Your task to perform on an android device: turn pop-ups off in chrome Image 0: 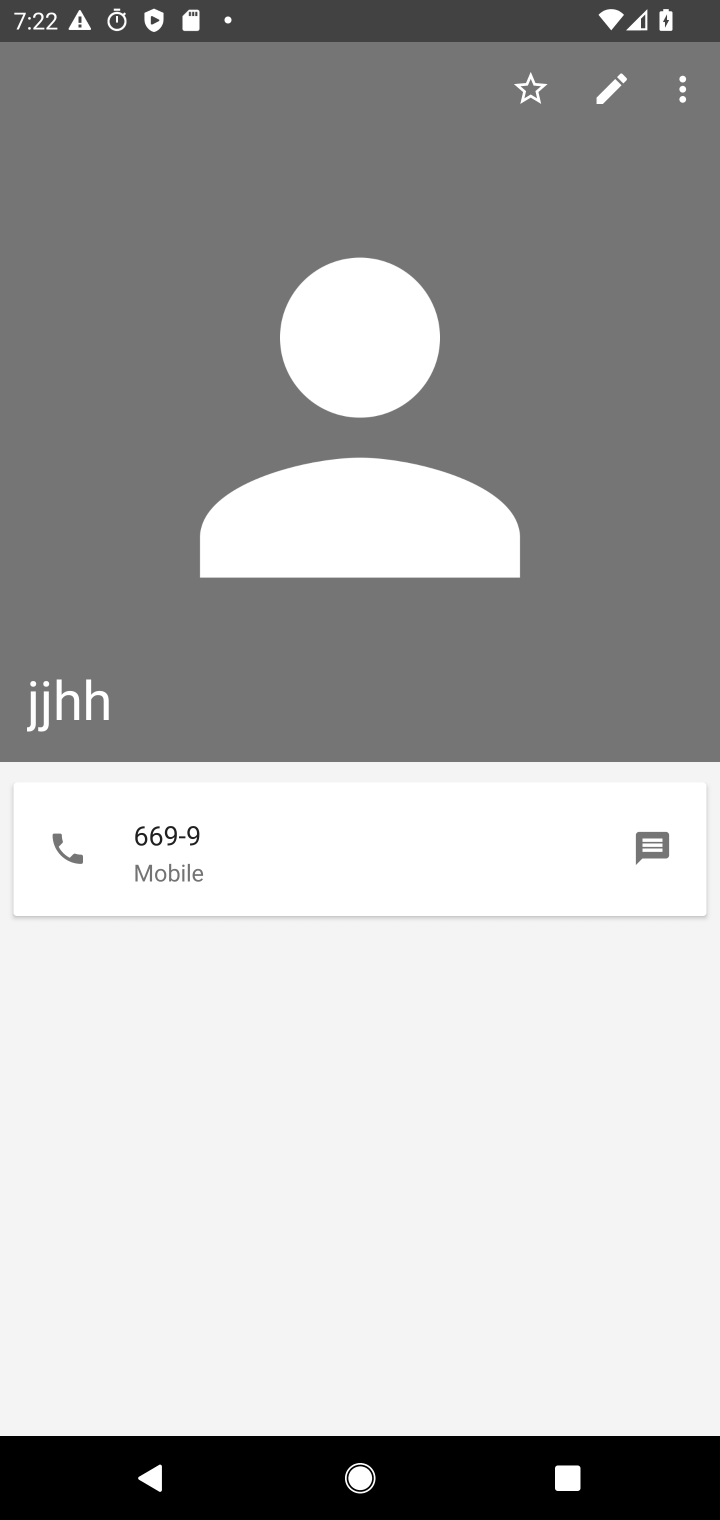
Step 0: press home button
Your task to perform on an android device: turn pop-ups off in chrome Image 1: 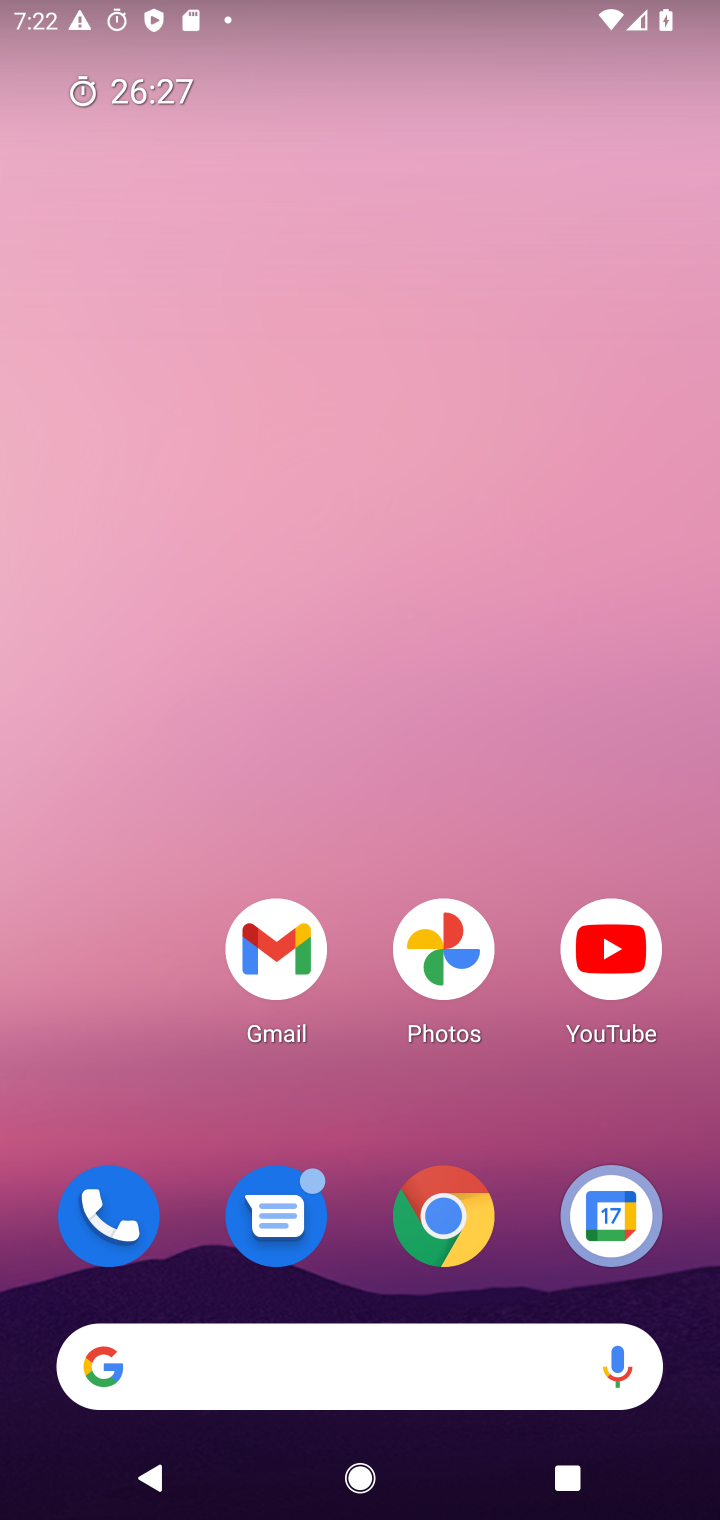
Step 1: drag from (456, 1037) to (503, 223)
Your task to perform on an android device: turn pop-ups off in chrome Image 2: 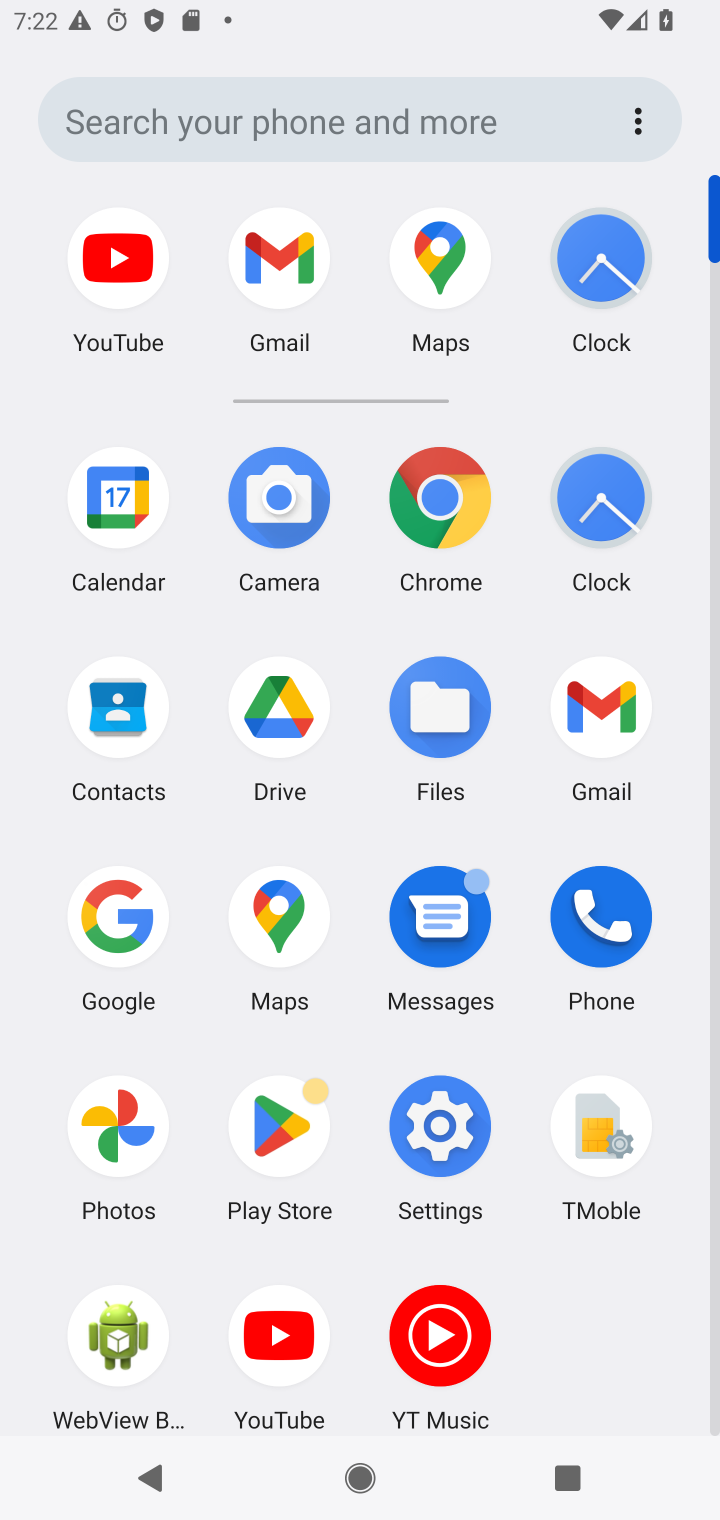
Step 2: click (441, 501)
Your task to perform on an android device: turn pop-ups off in chrome Image 3: 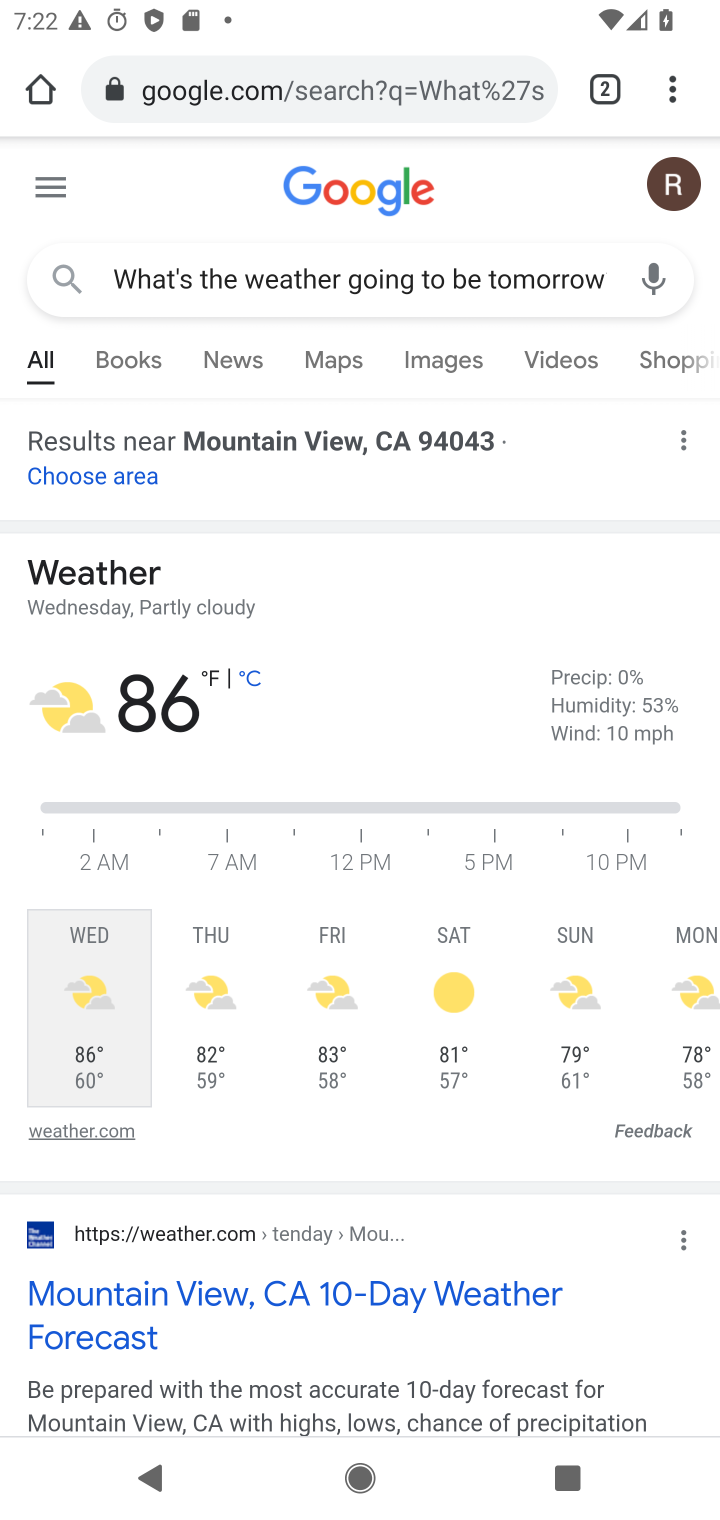
Step 3: drag from (667, 78) to (477, 1234)
Your task to perform on an android device: turn pop-ups off in chrome Image 4: 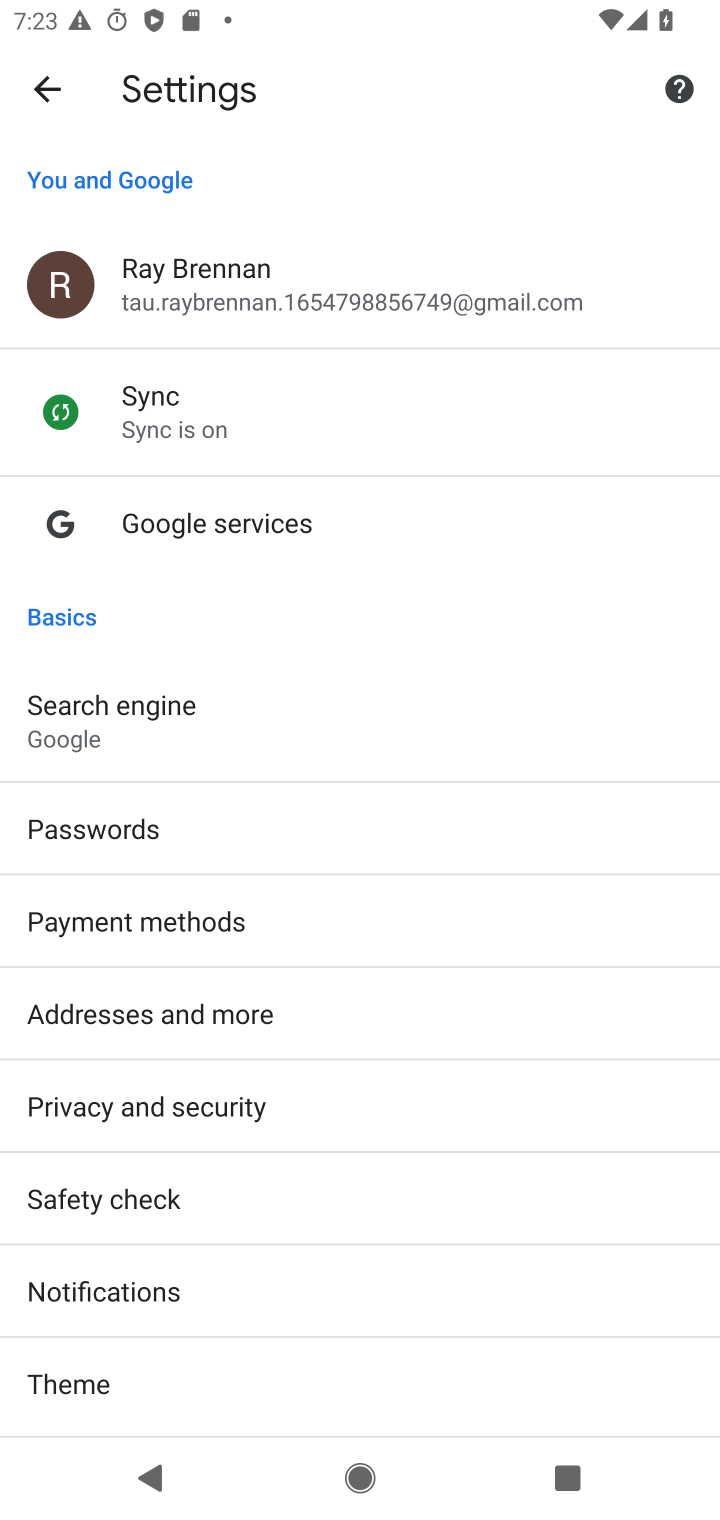
Step 4: drag from (392, 1149) to (420, 209)
Your task to perform on an android device: turn pop-ups off in chrome Image 5: 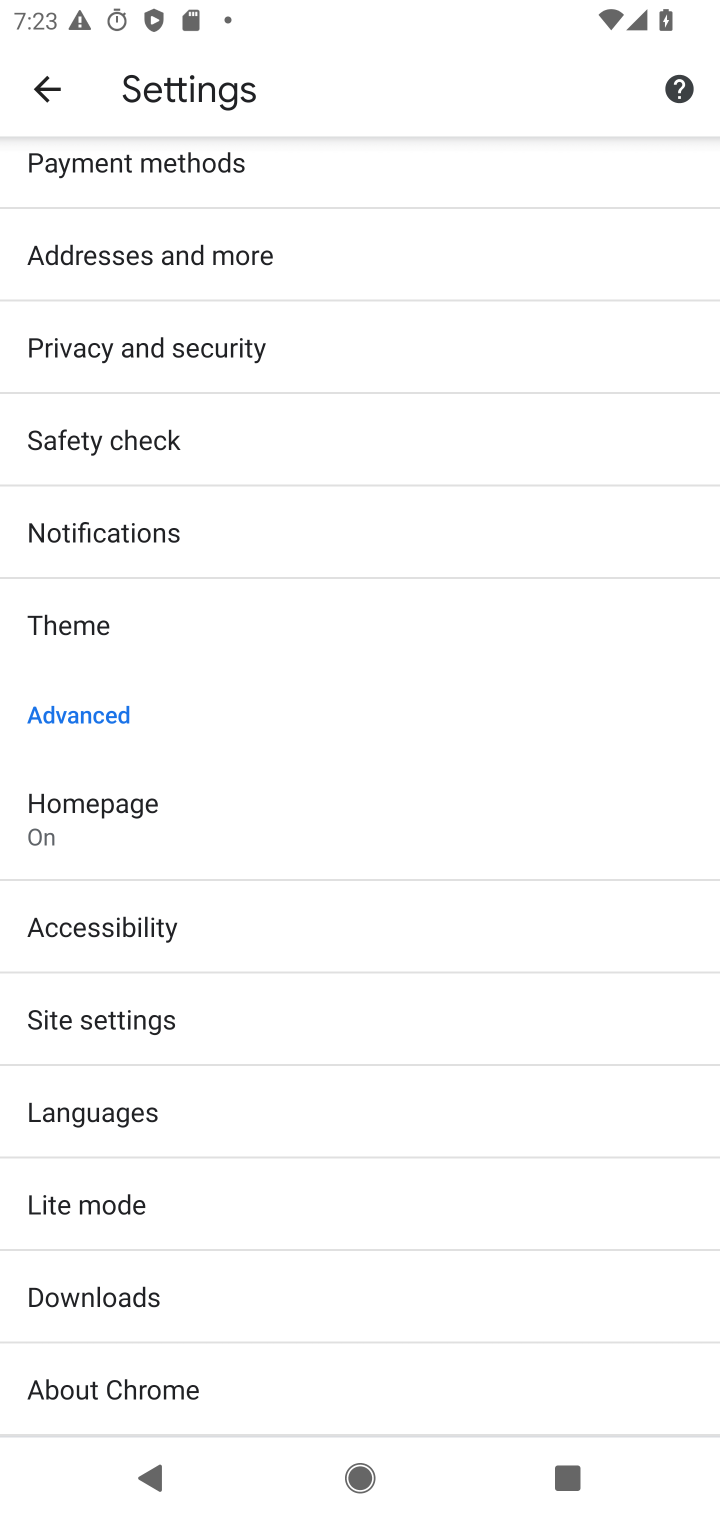
Step 5: click (121, 1004)
Your task to perform on an android device: turn pop-ups off in chrome Image 6: 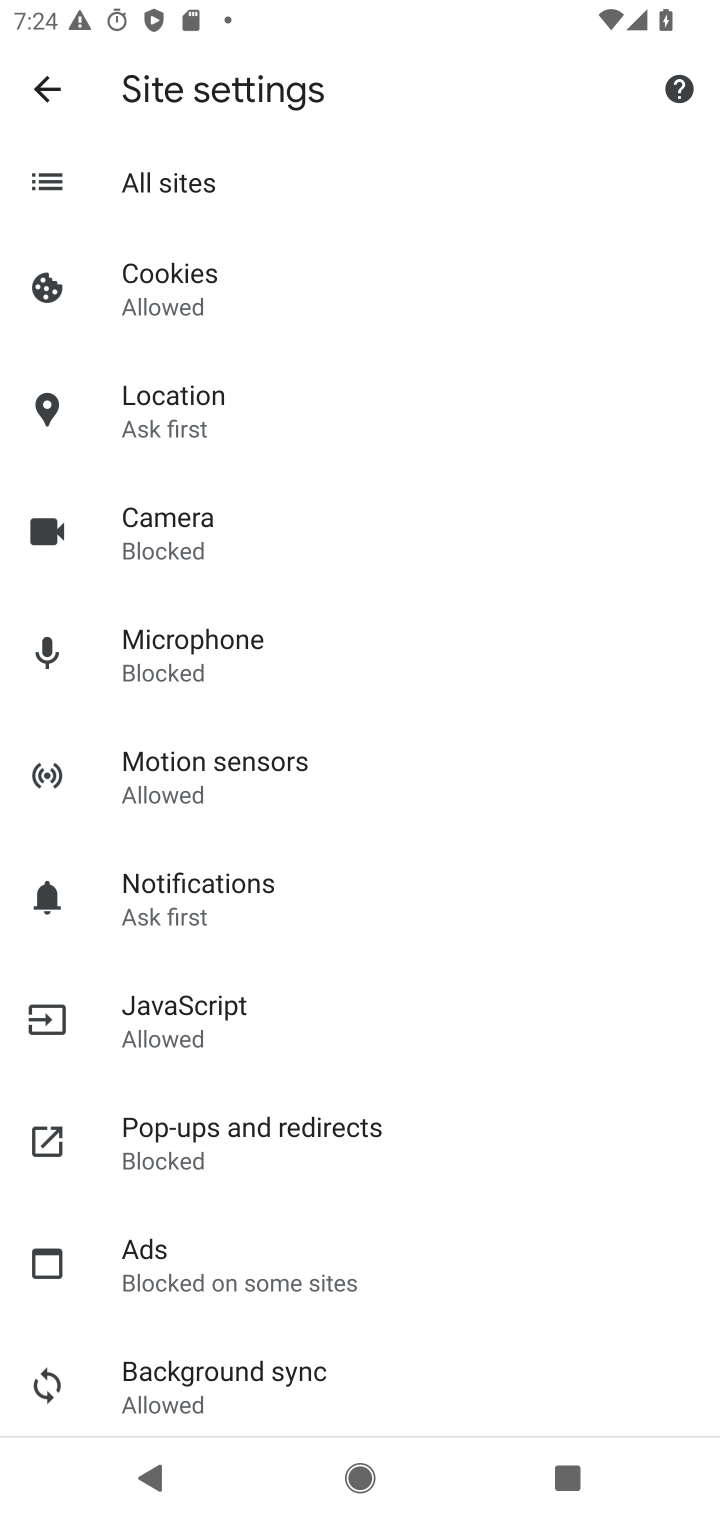
Step 6: click (277, 1140)
Your task to perform on an android device: turn pop-ups off in chrome Image 7: 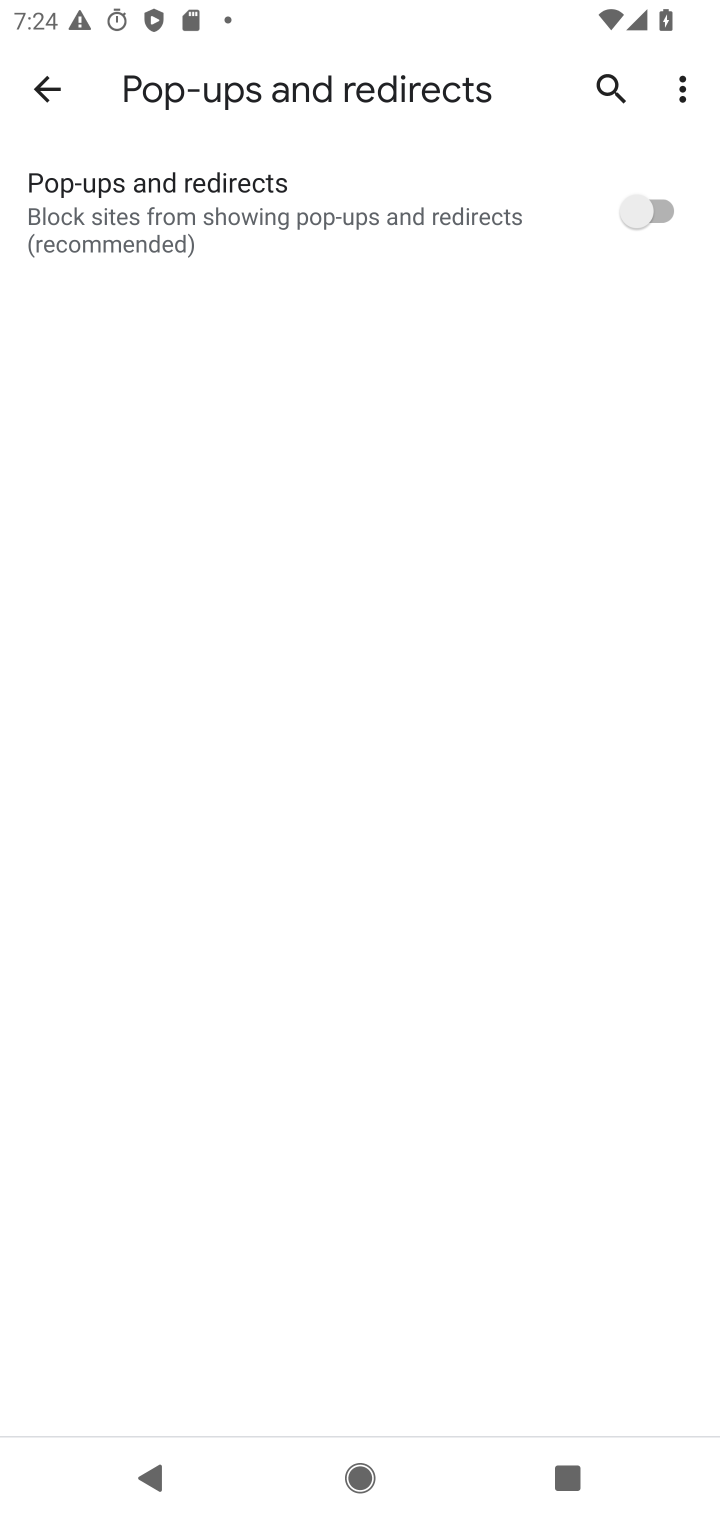
Step 7: task complete